Your task to perform on an android device: Go to Amazon Image 0: 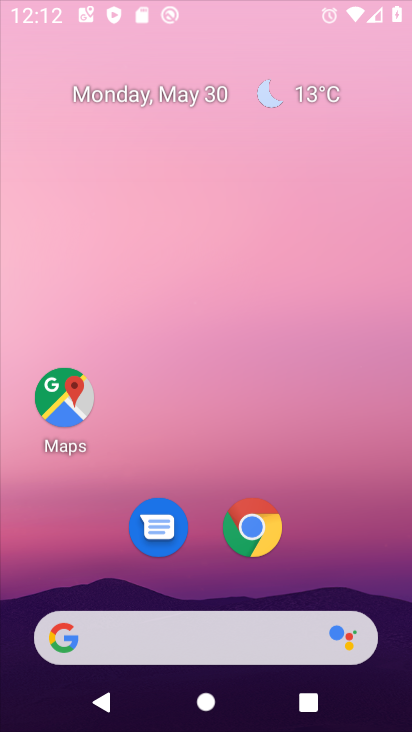
Step 0: click (174, 630)
Your task to perform on an android device: Go to Amazon Image 1: 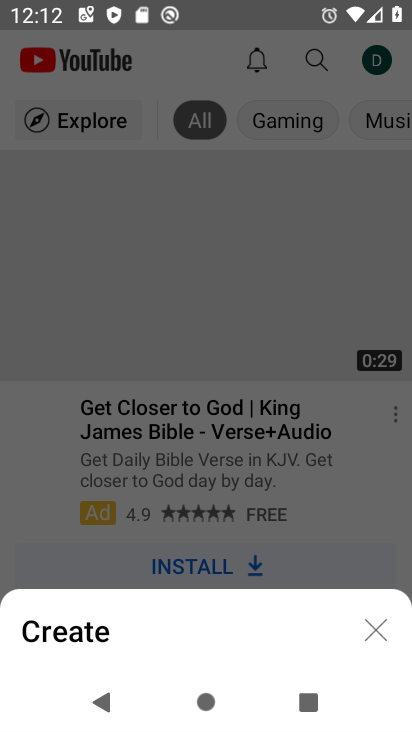
Step 1: press home button
Your task to perform on an android device: Go to Amazon Image 2: 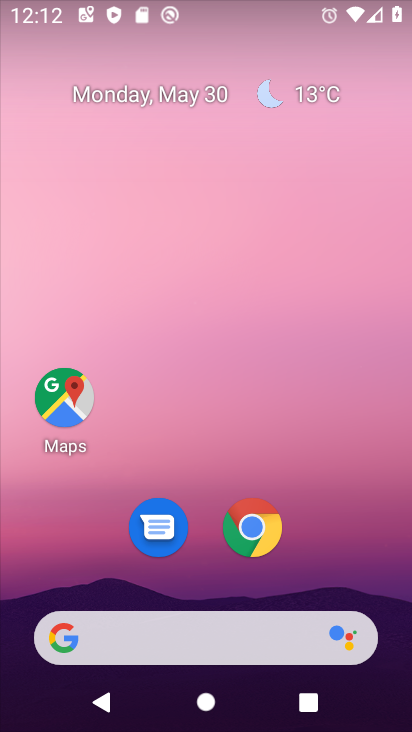
Step 2: click (249, 520)
Your task to perform on an android device: Go to Amazon Image 3: 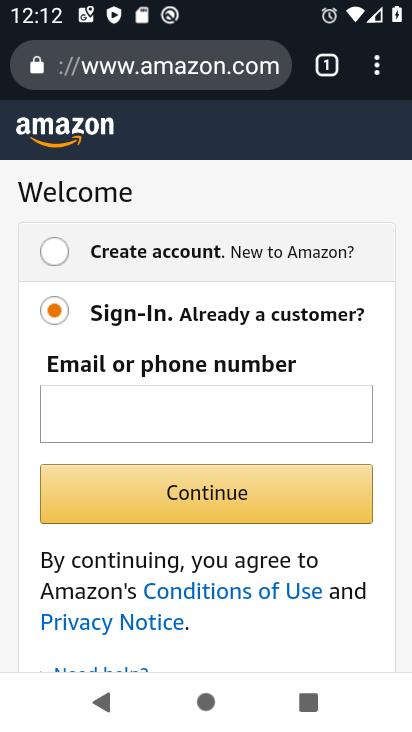
Step 3: task complete